Your task to perform on an android device: change text size in settings app Image 0: 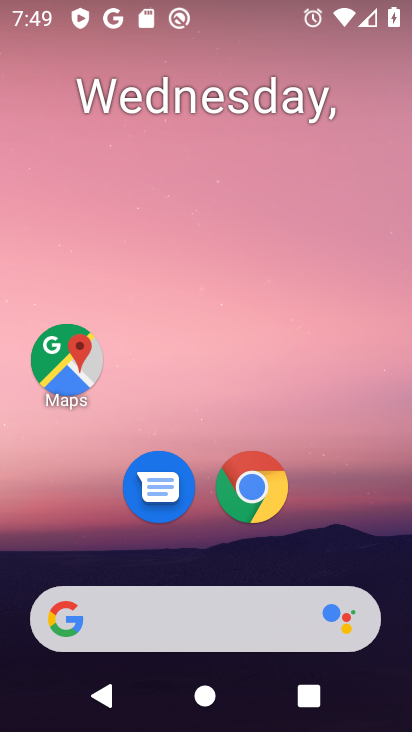
Step 0: drag from (247, 435) to (344, 95)
Your task to perform on an android device: change text size in settings app Image 1: 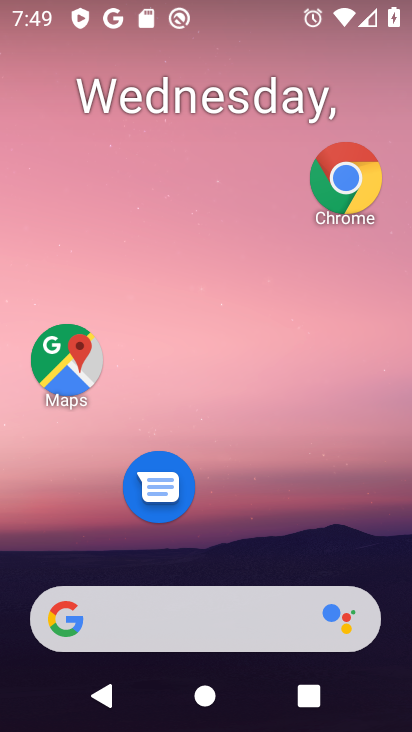
Step 1: drag from (230, 604) to (230, 106)
Your task to perform on an android device: change text size in settings app Image 2: 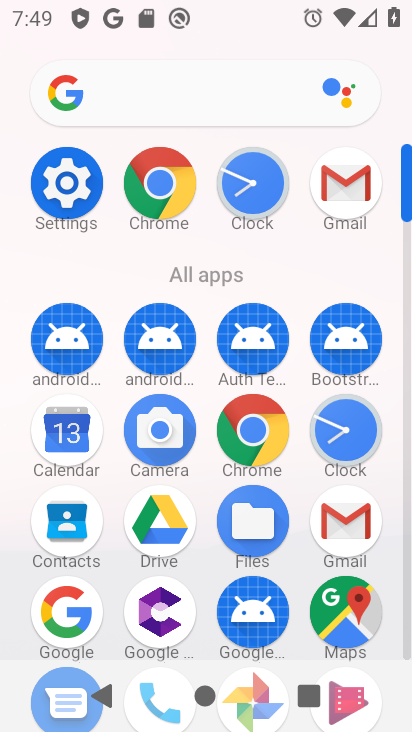
Step 2: drag from (187, 509) to (282, 163)
Your task to perform on an android device: change text size in settings app Image 3: 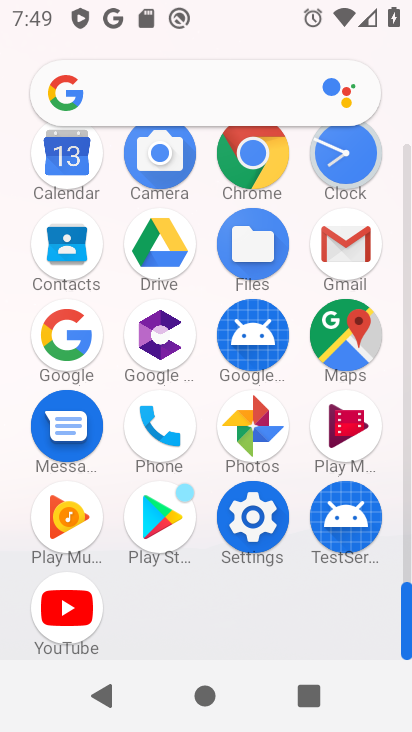
Step 3: click (253, 516)
Your task to perform on an android device: change text size in settings app Image 4: 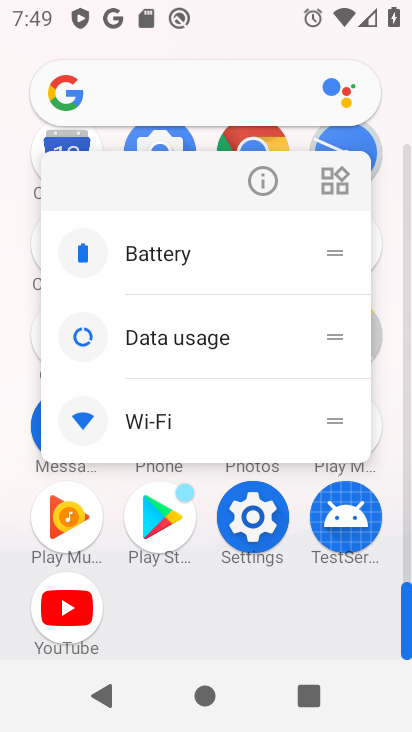
Step 4: click (254, 530)
Your task to perform on an android device: change text size in settings app Image 5: 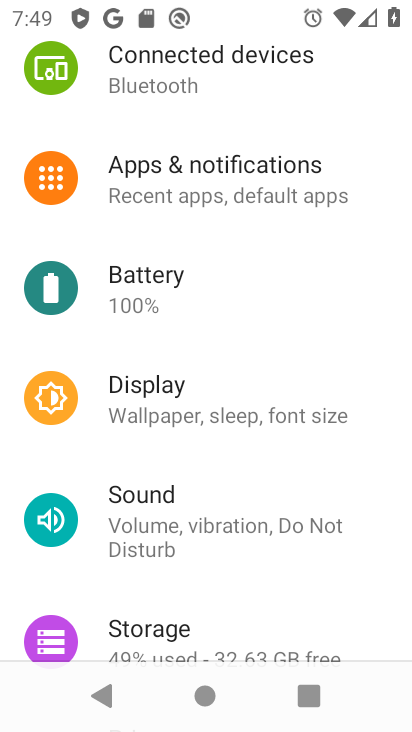
Step 5: drag from (210, 314) to (178, 511)
Your task to perform on an android device: change text size in settings app Image 6: 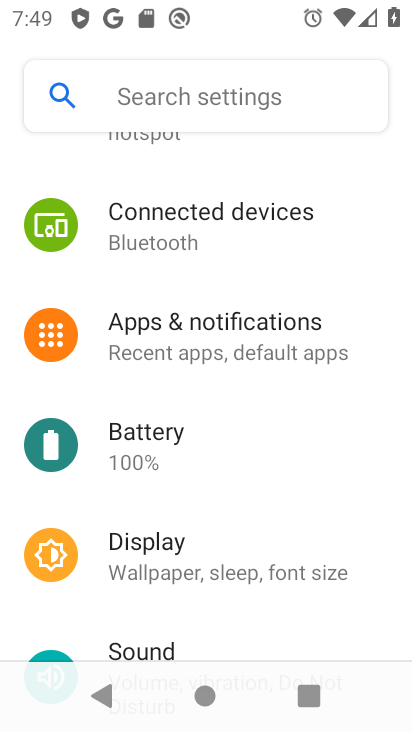
Step 6: click (199, 564)
Your task to perform on an android device: change text size in settings app Image 7: 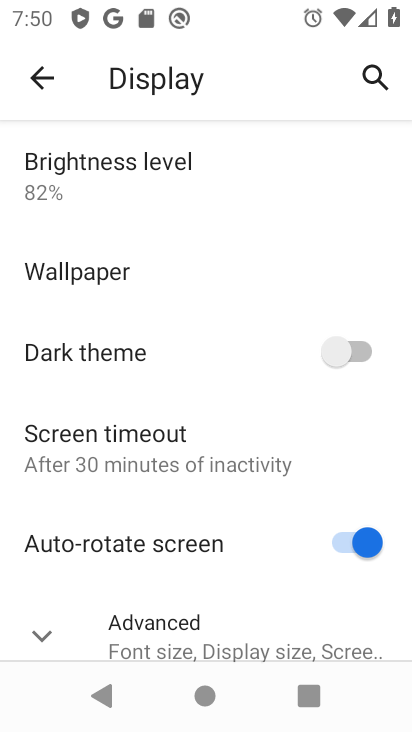
Step 7: click (166, 631)
Your task to perform on an android device: change text size in settings app Image 8: 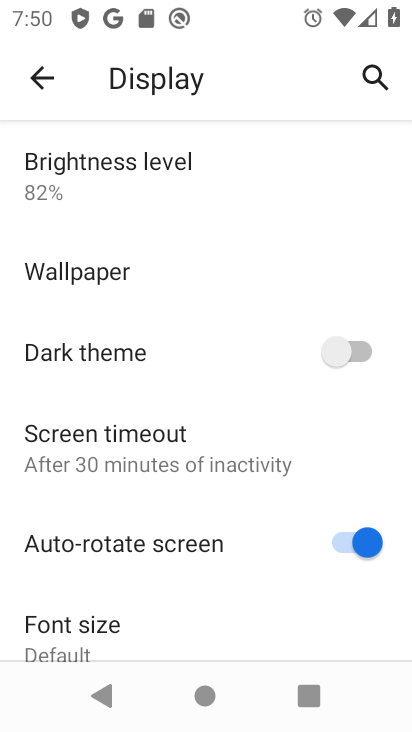
Step 8: drag from (157, 600) to (171, 65)
Your task to perform on an android device: change text size in settings app Image 9: 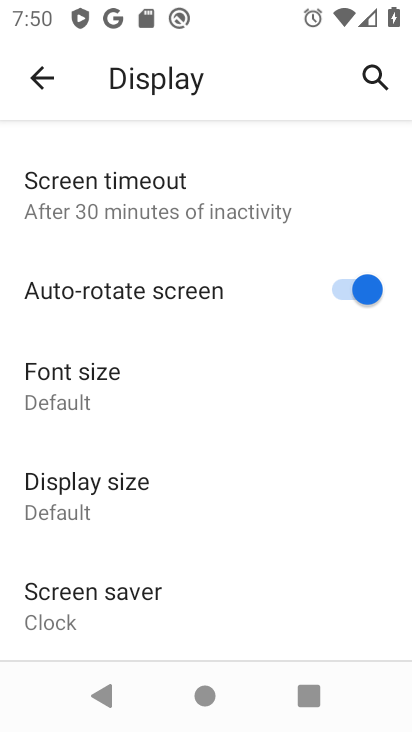
Step 9: click (98, 387)
Your task to perform on an android device: change text size in settings app Image 10: 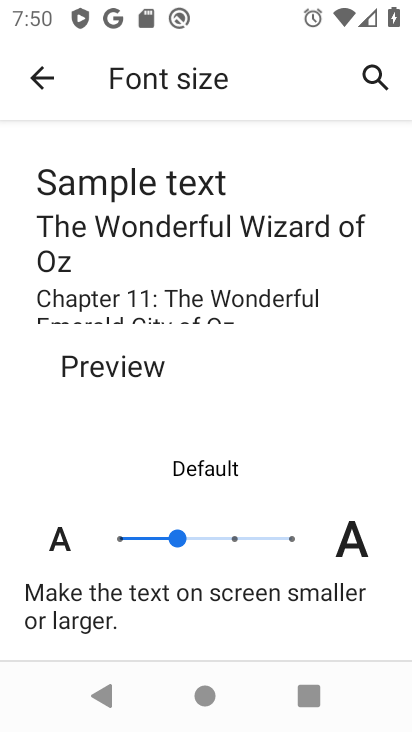
Step 10: click (234, 536)
Your task to perform on an android device: change text size in settings app Image 11: 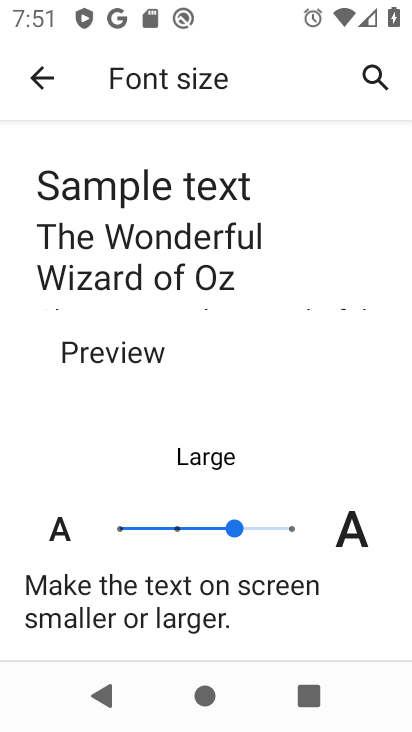
Step 11: task complete